Your task to perform on an android device: move an email to a new category in the gmail app Image 0: 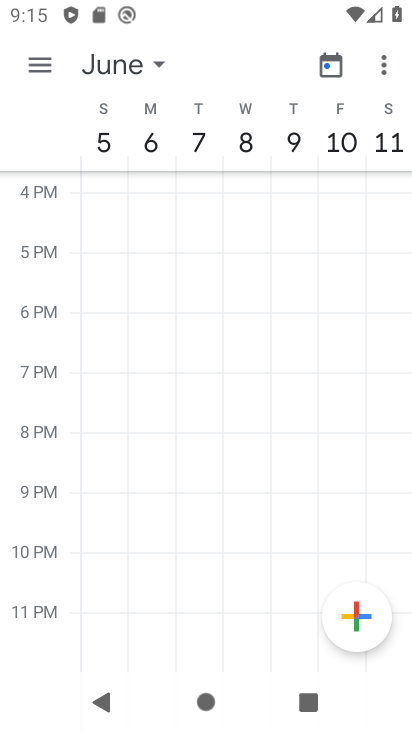
Step 0: press home button
Your task to perform on an android device: move an email to a new category in the gmail app Image 1: 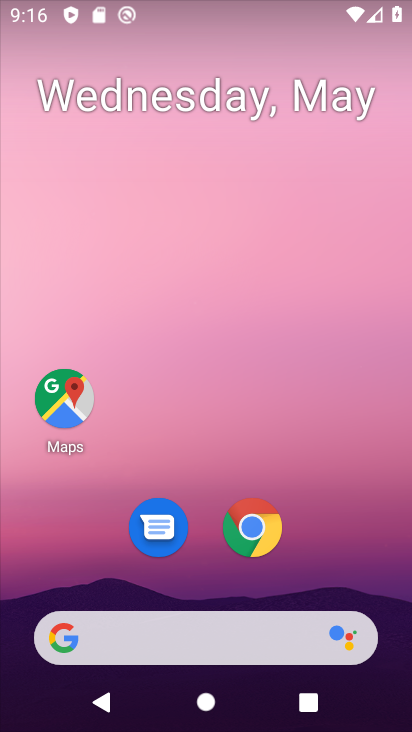
Step 1: drag from (192, 548) to (236, 13)
Your task to perform on an android device: move an email to a new category in the gmail app Image 2: 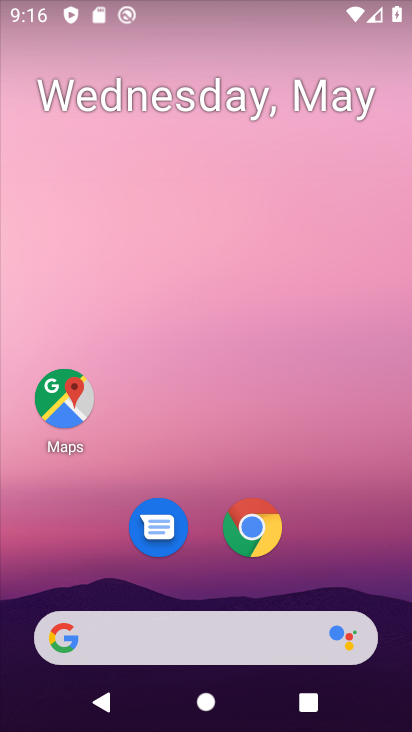
Step 2: click (224, 571)
Your task to perform on an android device: move an email to a new category in the gmail app Image 3: 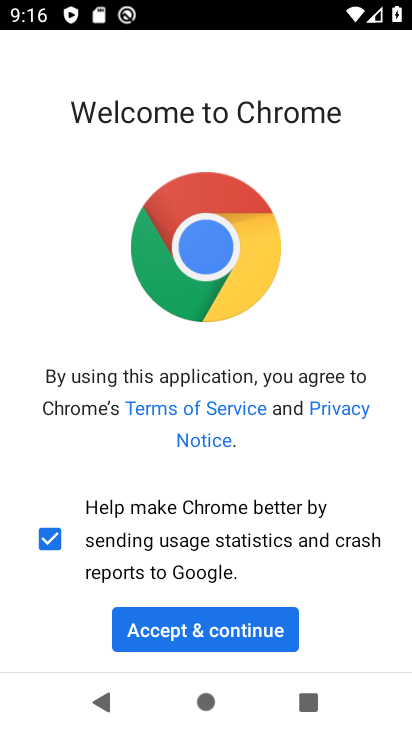
Step 3: press home button
Your task to perform on an android device: move an email to a new category in the gmail app Image 4: 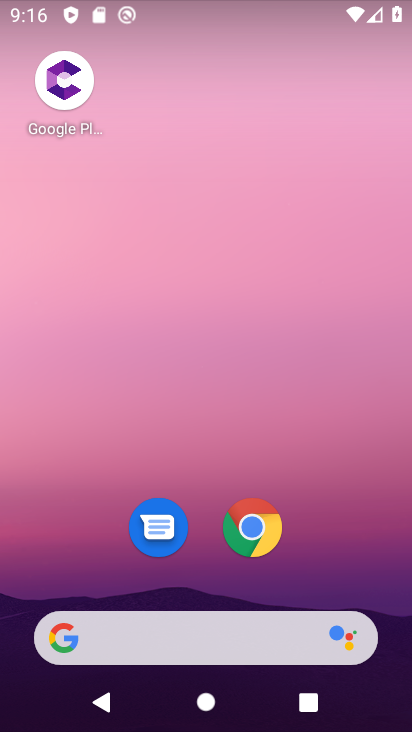
Step 4: drag from (210, 549) to (400, 7)
Your task to perform on an android device: move an email to a new category in the gmail app Image 5: 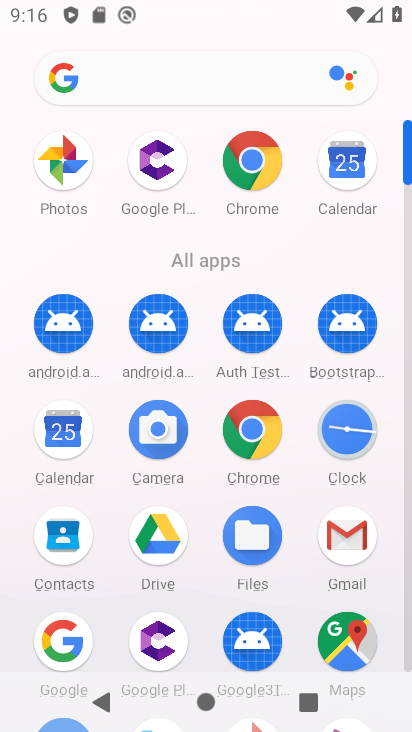
Step 5: click (344, 595)
Your task to perform on an android device: move an email to a new category in the gmail app Image 6: 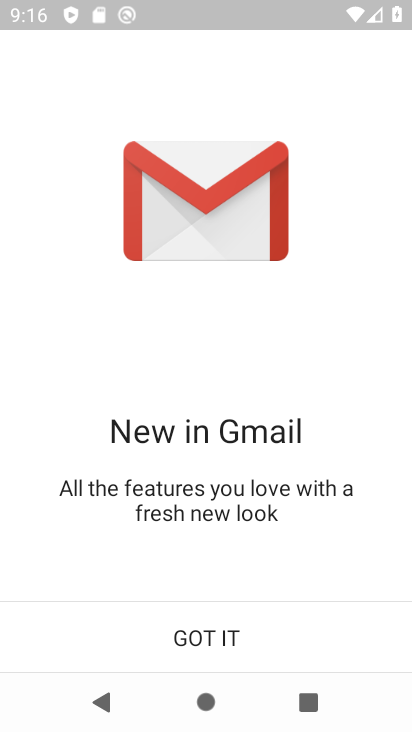
Step 6: click (246, 637)
Your task to perform on an android device: move an email to a new category in the gmail app Image 7: 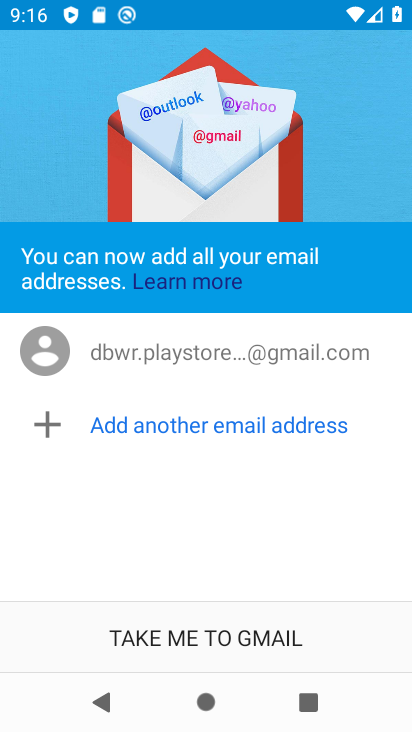
Step 7: click (246, 637)
Your task to perform on an android device: move an email to a new category in the gmail app Image 8: 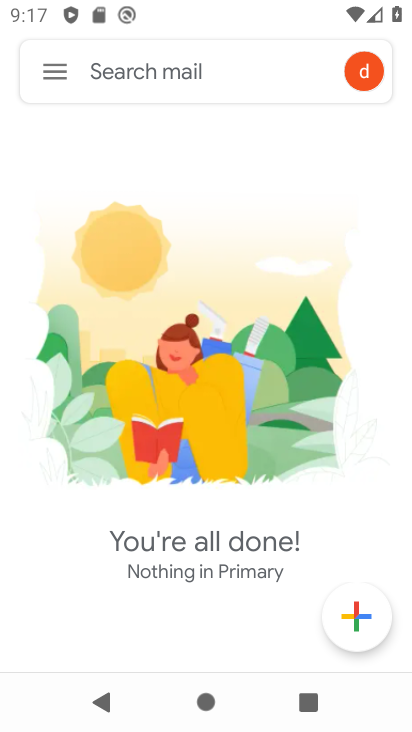
Step 8: task complete